Your task to perform on an android device: find photos in the google photos app Image 0: 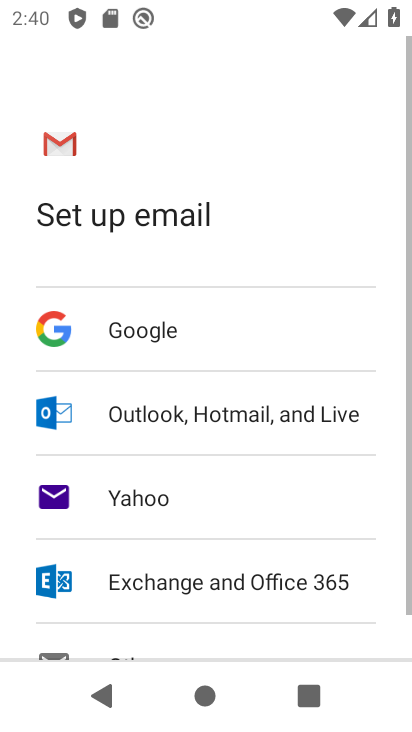
Step 0: press home button
Your task to perform on an android device: find photos in the google photos app Image 1: 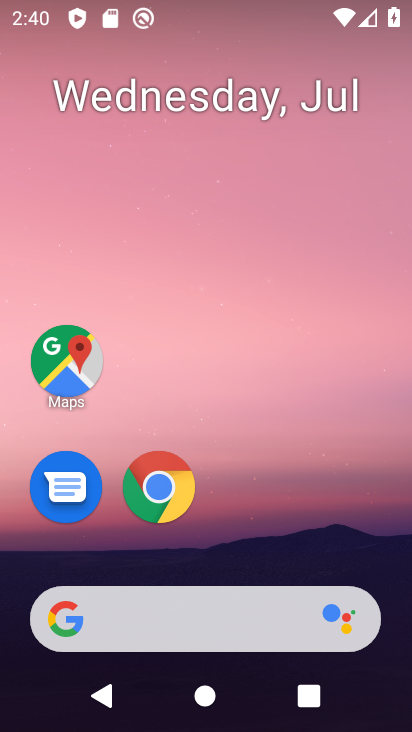
Step 1: drag from (401, 579) to (347, 168)
Your task to perform on an android device: find photos in the google photos app Image 2: 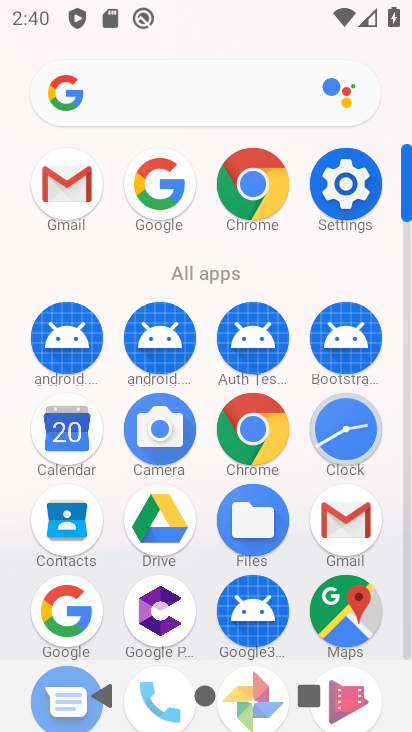
Step 2: click (406, 655)
Your task to perform on an android device: find photos in the google photos app Image 3: 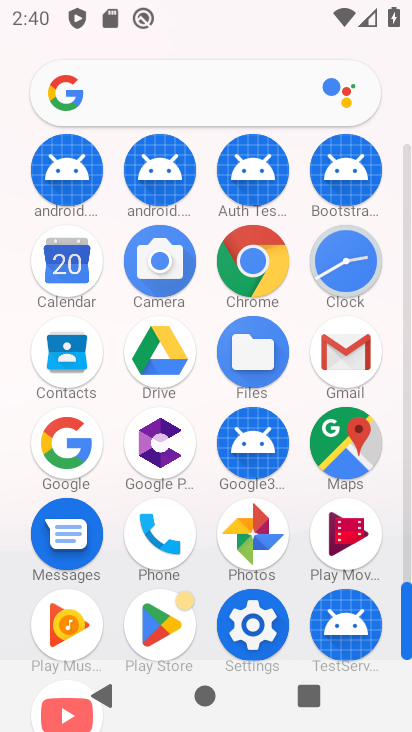
Step 3: click (266, 538)
Your task to perform on an android device: find photos in the google photos app Image 4: 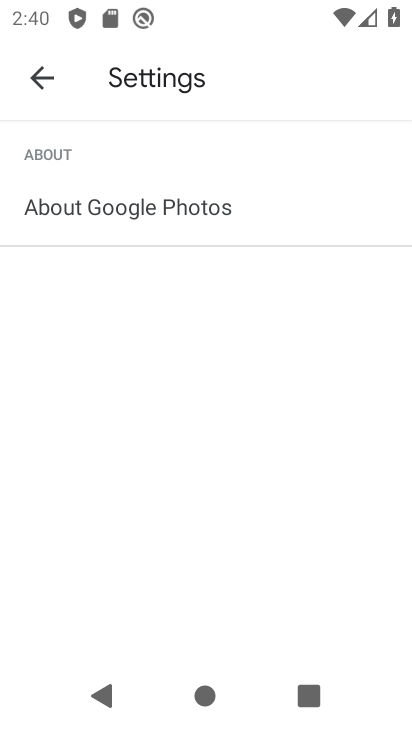
Step 4: click (42, 82)
Your task to perform on an android device: find photos in the google photos app Image 5: 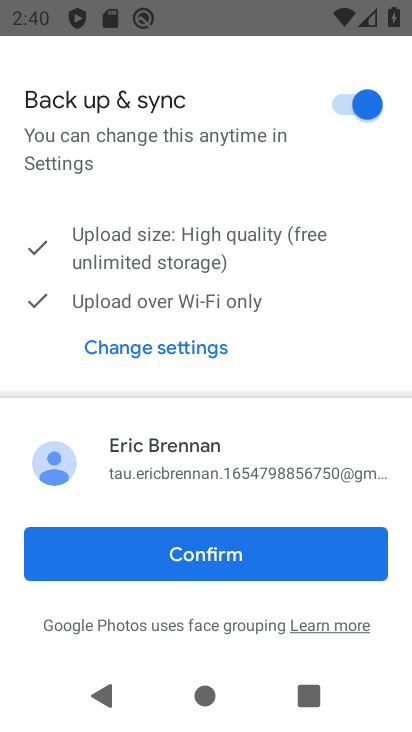
Step 5: click (327, 555)
Your task to perform on an android device: find photos in the google photos app Image 6: 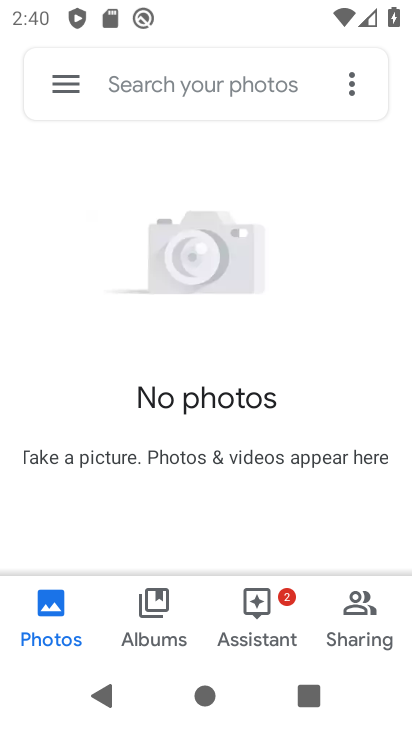
Step 6: task complete